Your task to perform on an android device: What's the weather going to be this weekend? Image 0: 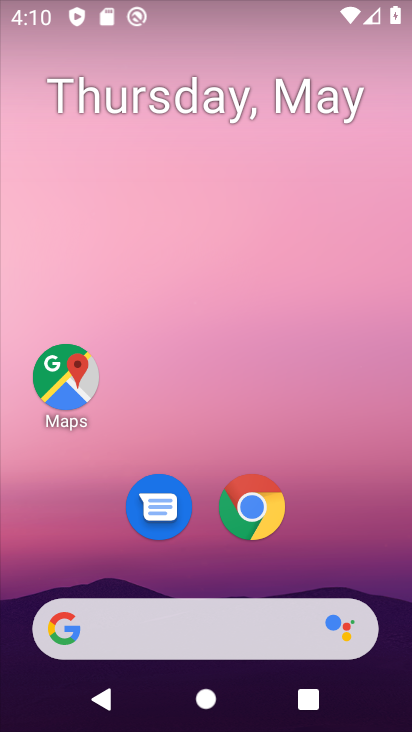
Step 0: click (187, 620)
Your task to perform on an android device: What's the weather going to be this weekend? Image 1: 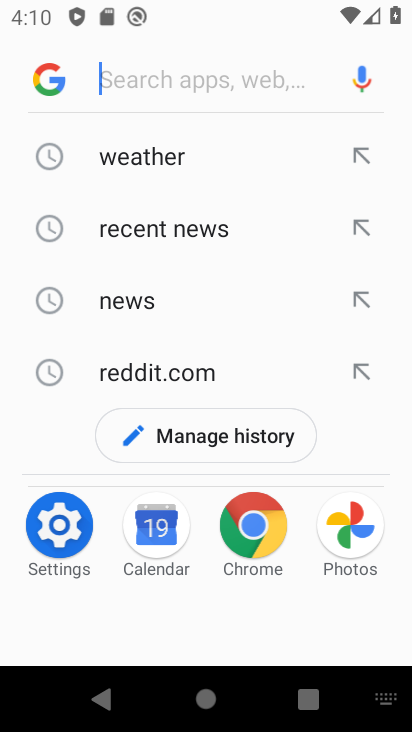
Step 1: type "what's the weather going to be this weekend"
Your task to perform on an android device: What's the weather going to be this weekend? Image 2: 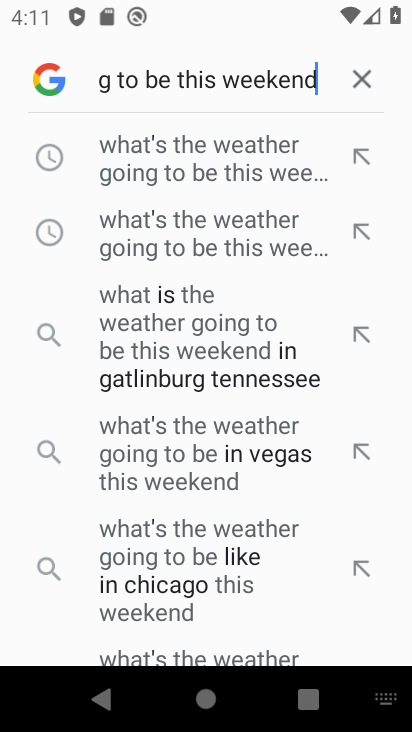
Step 2: click (236, 145)
Your task to perform on an android device: What's the weather going to be this weekend? Image 3: 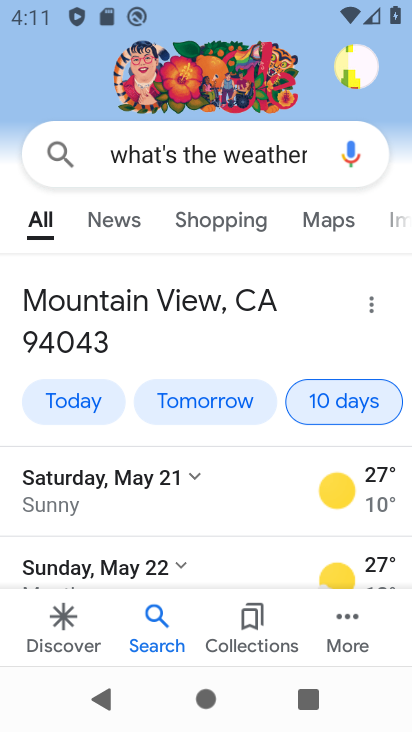
Step 3: task complete